Your task to perform on an android device: Show me popular videos on Youtube Image 0: 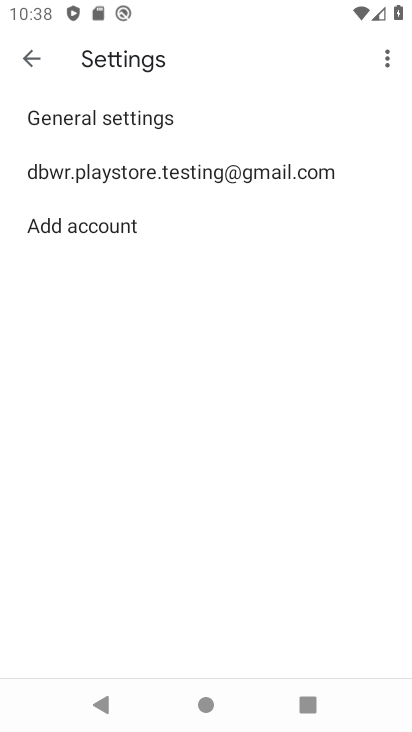
Step 0: press home button
Your task to perform on an android device: Show me popular videos on Youtube Image 1: 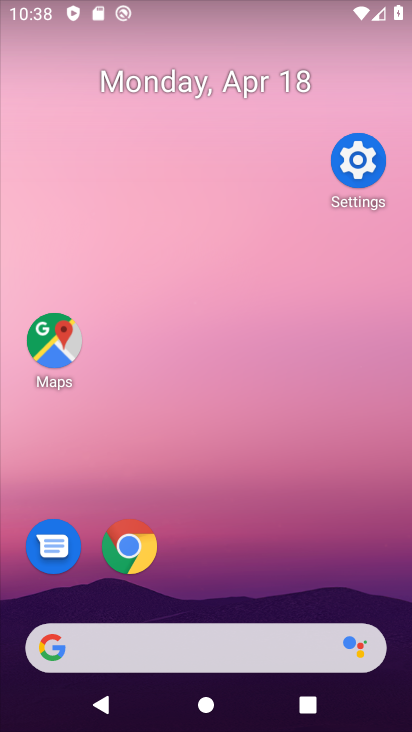
Step 1: drag from (270, 512) to (249, 340)
Your task to perform on an android device: Show me popular videos on Youtube Image 2: 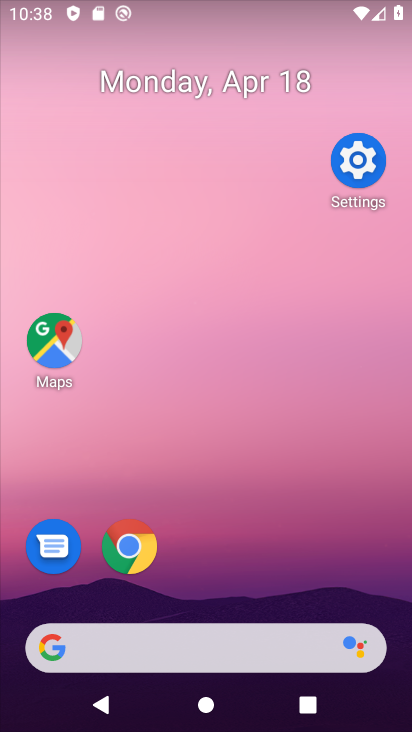
Step 2: drag from (214, 562) to (129, 285)
Your task to perform on an android device: Show me popular videos on Youtube Image 3: 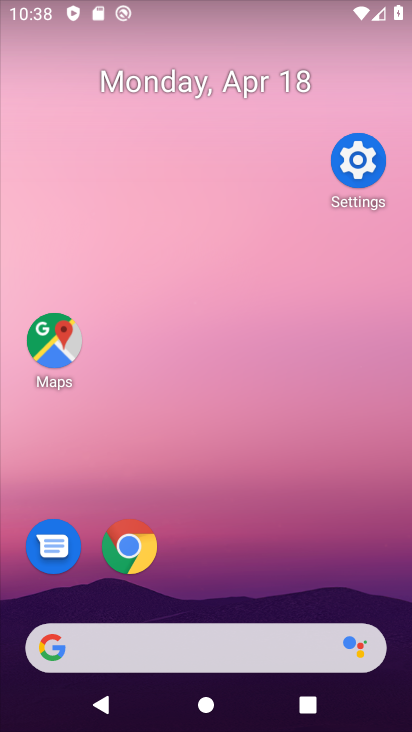
Step 3: drag from (180, 328) to (152, 209)
Your task to perform on an android device: Show me popular videos on Youtube Image 4: 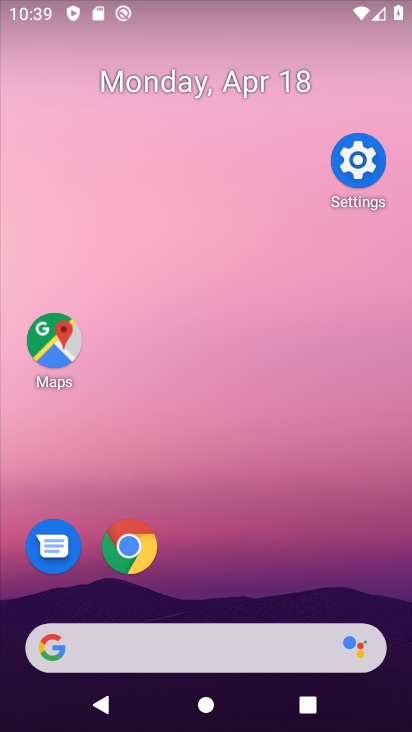
Step 4: drag from (215, 452) to (148, 205)
Your task to perform on an android device: Show me popular videos on Youtube Image 5: 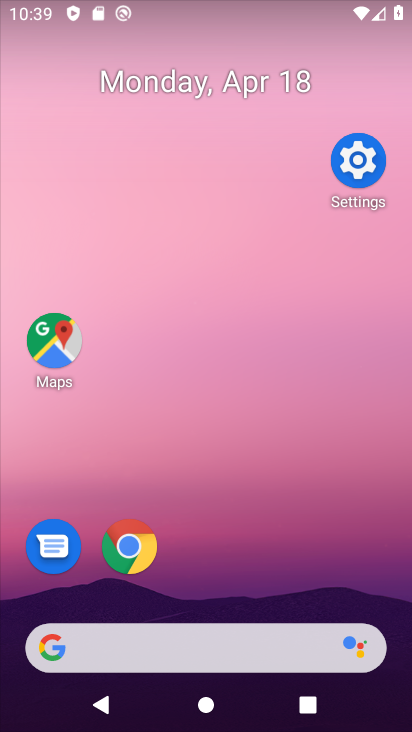
Step 5: drag from (211, 462) to (179, 247)
Your task to perform on an android device: Show me popular videos on Youtube Image 6: 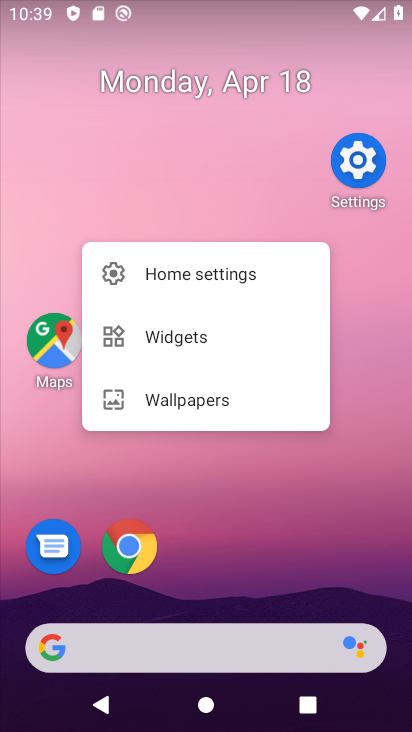
Step 6: drag from (277, 596) to (195, 111)
Your task to perform on an android device: Show me popular videos on Youtube Image 7: 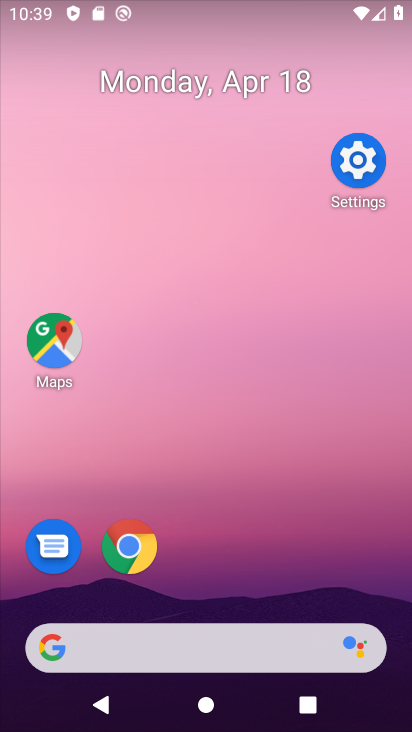
Step 7: click (198, 159)
Your task to perform on an android device: Show me popular videos on Youtube Image 8: 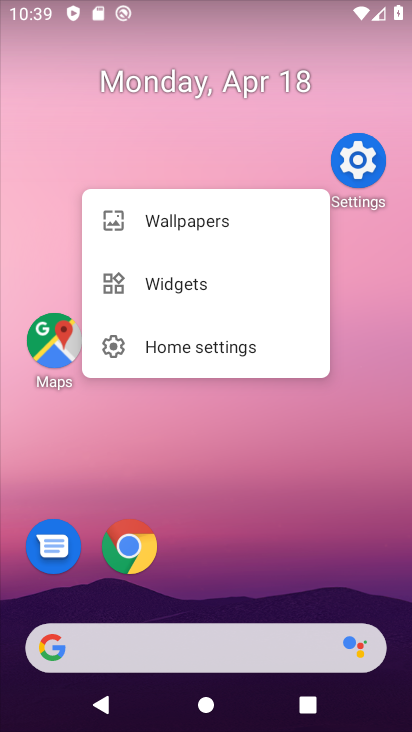
Step 8: drag from (302, 501) to (228, 163)
Your task to perform on an android device: Show me popular videos on Youtube Image 9: 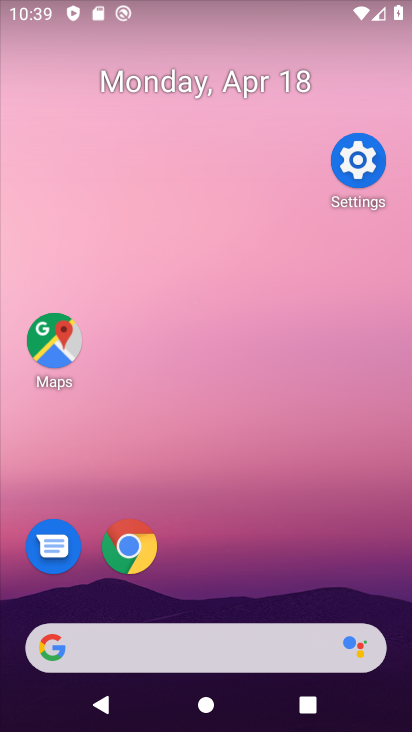
Step 9: click (228, 163)
Your task to perform on an android device: Show me popular videos on Youtube Image 10: 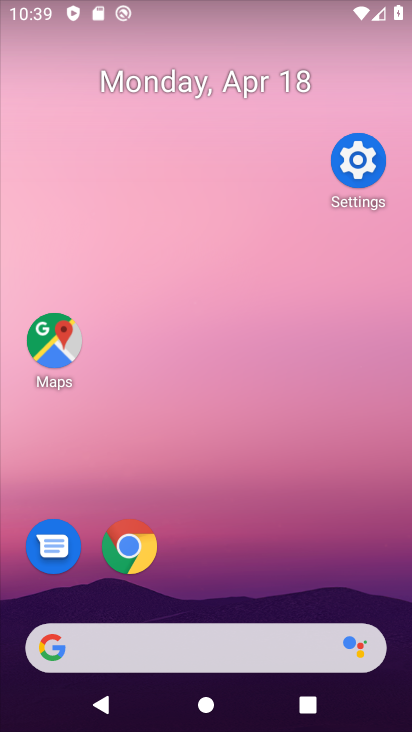
Step 10: drag from (191, 158) to (133, 171)
Your task to perform on an android device: Show me popular videos on Youtube Image 11: 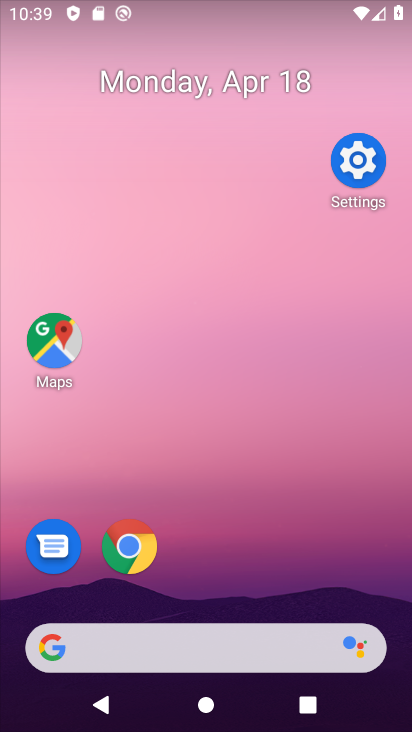
Step 11: drag from (283, 452) to (207, 186)
Your task to perform on an android device: Show me popular videos on Youtube Image 12: 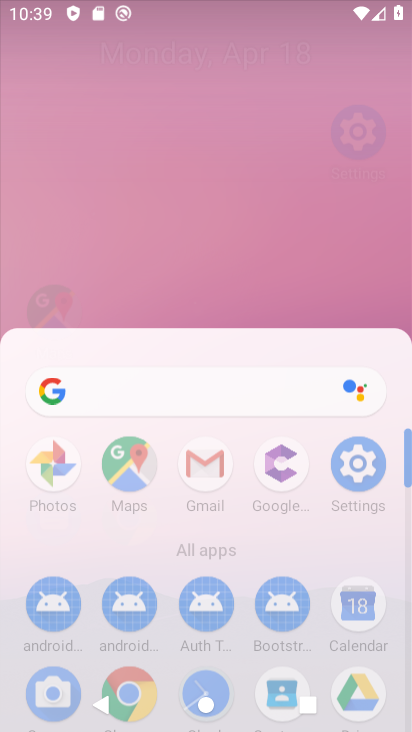
Step 12: drag from (212, 398) to (145, 113)
Your task to perform on an android device: Show me popular videos on Youtube Image 13: 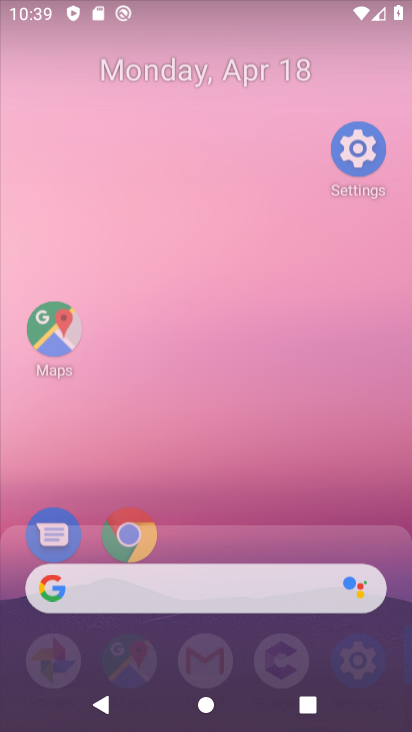
Step 13: drag from (259, 455) to (174, 106)
Your task to perform on an android device: Show me popular videos on Youtube Image 14: 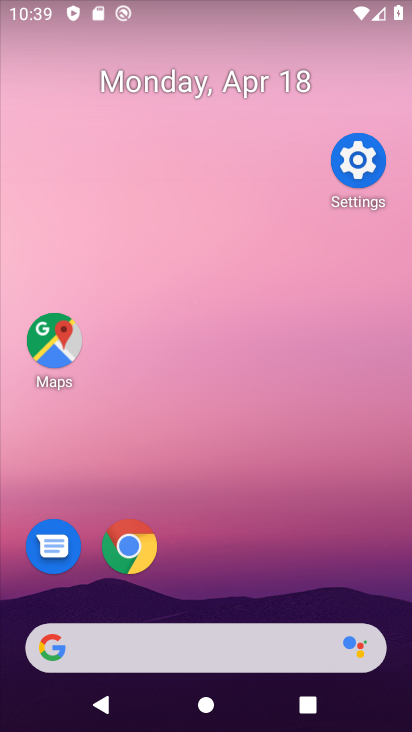
Step 14: drag from (316, 464) to (150, 132)
Your task to perform on an android device: Show me popular videos on Youtube Image 15: 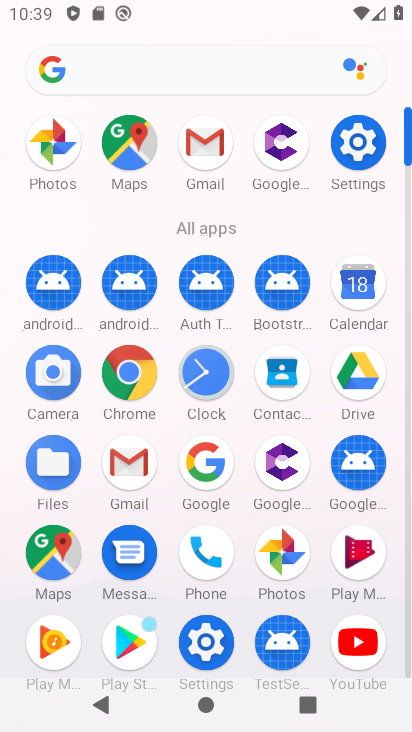
Step 15: click (368, 641)
Your task to perform on an android device: Show me popular videos on Youtube Image 16: 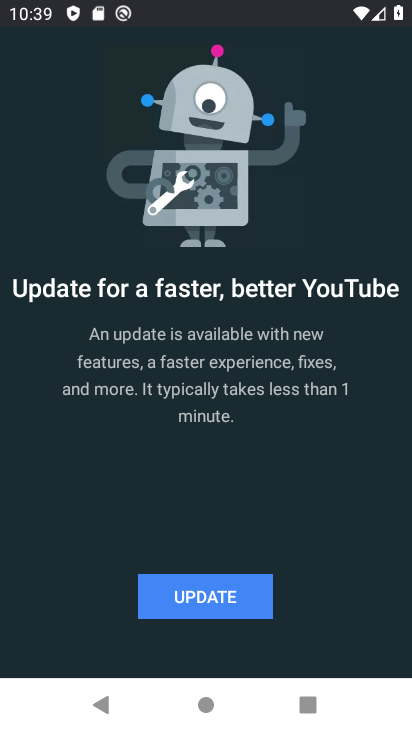
Step 16: click (222, 592)
Your task to perform on an android device: Show me popular videos on Youtube Image 17: 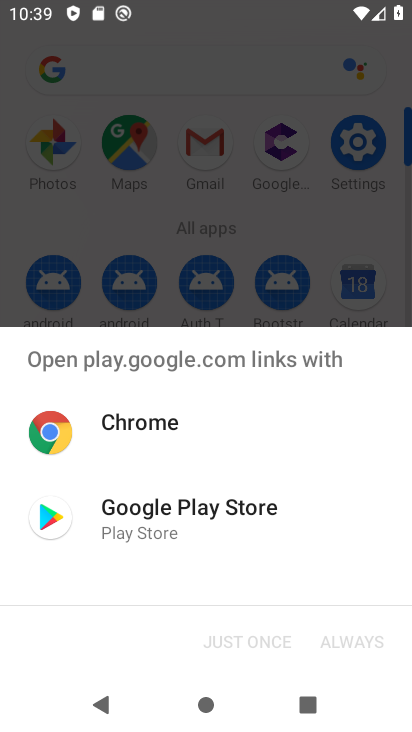
Step 17: click (137, 511)
Your task to perform on an android device: Show me popular videos on Youtube Image 18: 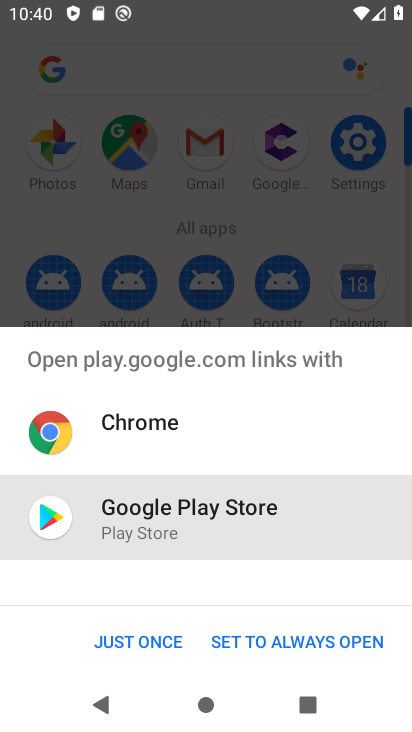
Step 18: click (131, 498)
Your task to perform on an android device: Show me popular videos on Youtube Image 19: 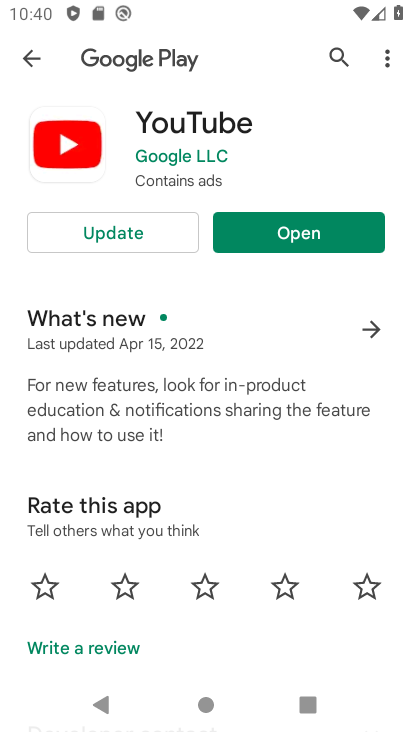
Step 19: click (271, 239)
Your task to perform on an android device: Show me popular videos on Youtube Image 20: 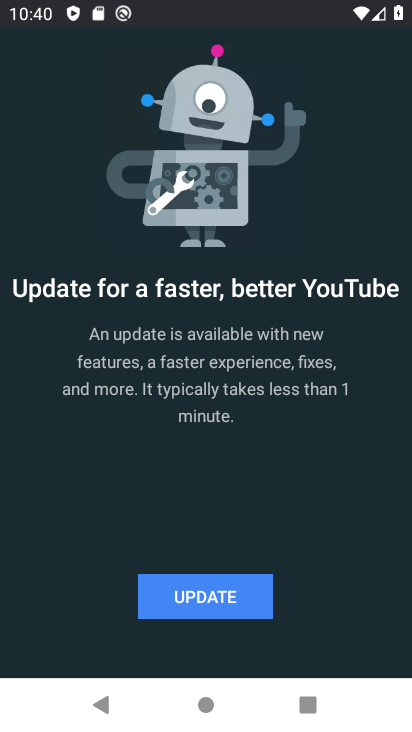
Step 20: click (227, 594)
Your task to perform on an android device: Show me popular videos on Youtube Image 21: 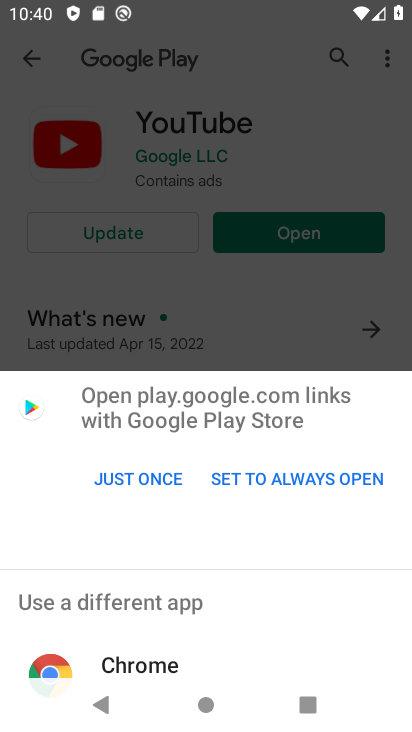
Step 21: click (145, 233)
Your task to perform on an android device: Show me popular videos on Youtube Image 22: 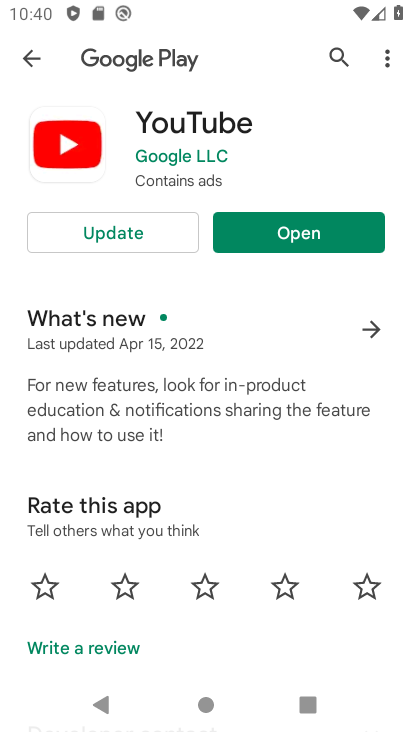
Step 22: click (119, 230)
Your task to perform on an android device: Show me popular videos on Youtube Image 23: 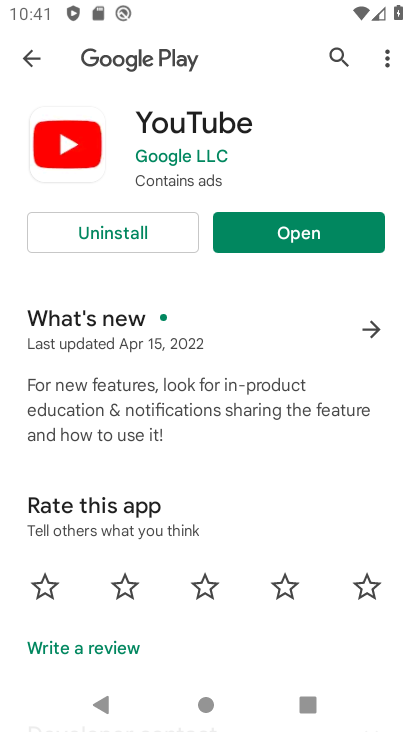
Step 23: click (306, 229)
Your task to perform on an android device: Show me popular videos on Youtube Image 24: 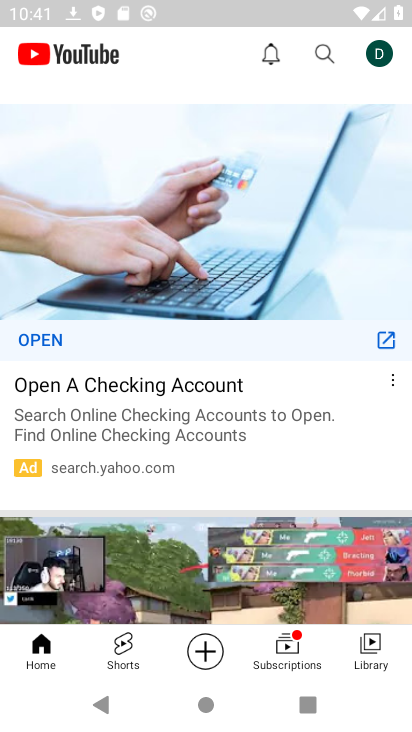
Step 24: drag from (288, 579) to (255, 237)
Your task to perform on an android device: Show me popular videos on Youtube Image 25: 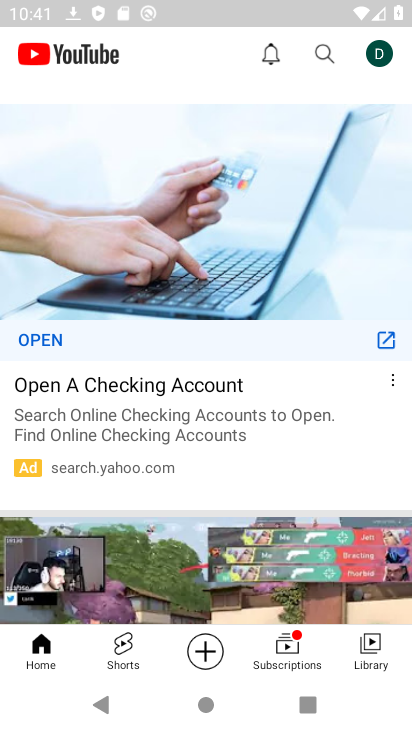
Step 25: drag from (288, 486) to (258, 224)
Your task to perform on an android device: Show me popular videos on Youtube Image 26: 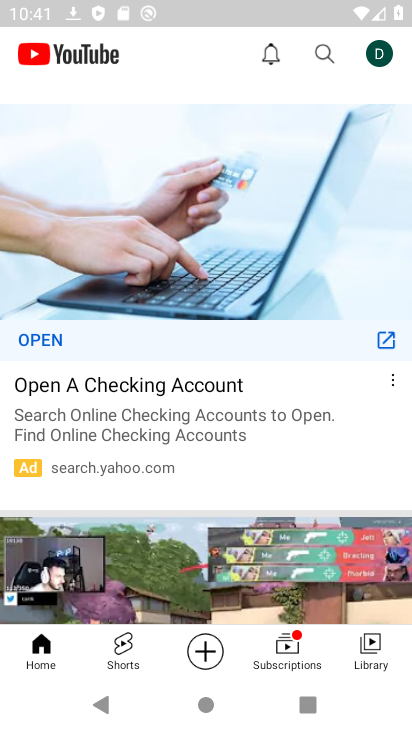
Step 26: drag from (296, 346) to (296, 210)
Your task to perform on an android device: Show me popular videos on Youtube Image 27: 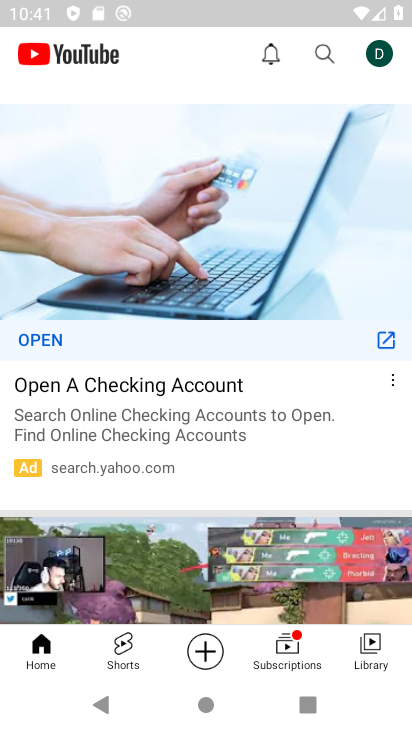
Step 27: drag from (207, 467) to (184, 307)
Your task to perform on an android device: Show me popular videos on Youtube Image 28: 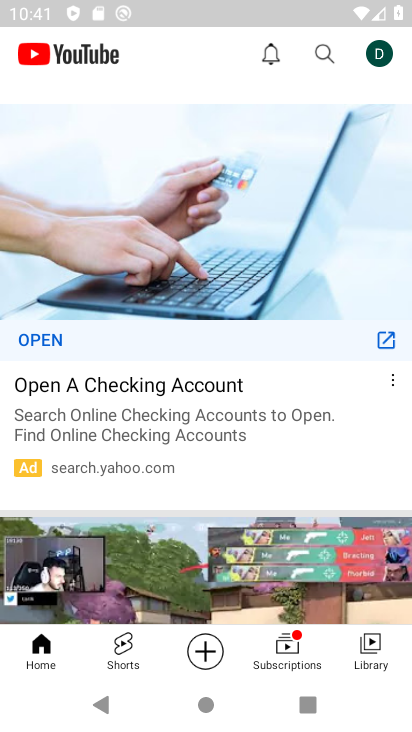
Step 28: drag from (263, 505) to (243, 255)
Your task to perform on an android device: Show me popular videos on Youtube Image 29: 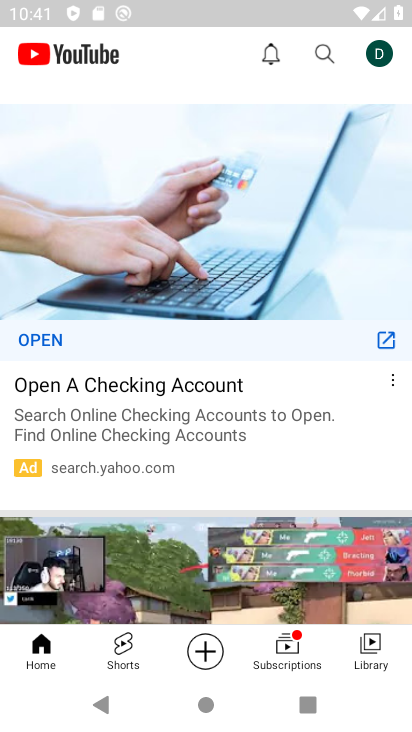
Step 29: drag from (282, 295) to (282, 255)
Your task to perform on an android device: Show me popular videos on Youtube Image 30: 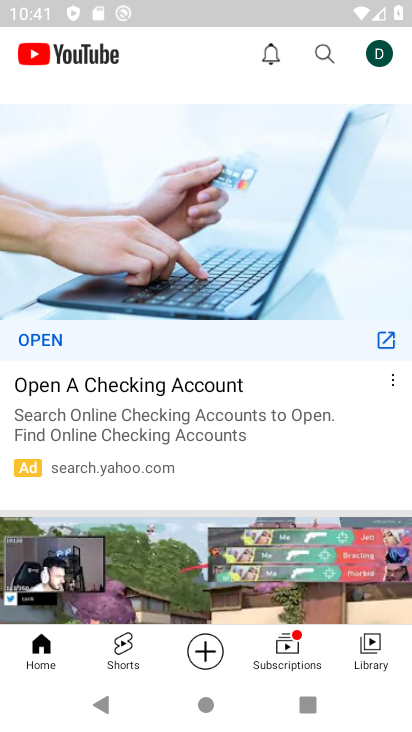
Step 30: drag from (221, 497) to (181, 215)
Your task to perform on an android device: Show me popular videos on Youtube Image 31: 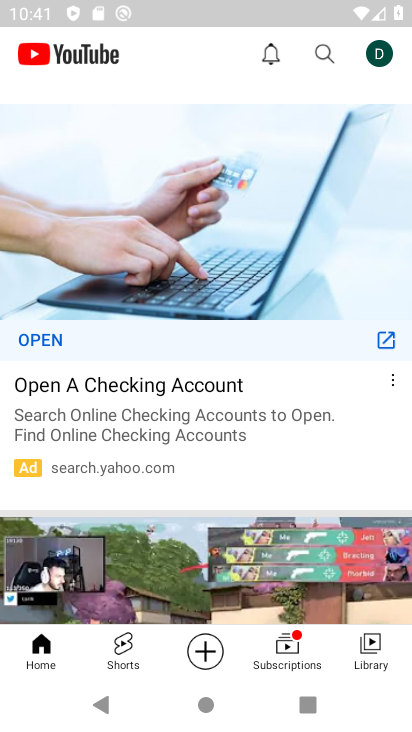
Step 31: drag from (209, 530) to (198, 207)
Your task to perform on an android device: Show me popular videos on Youtube Image 32: 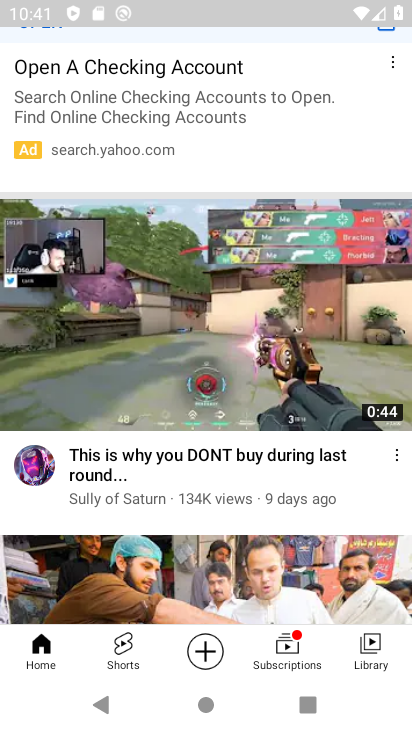
Step 32: drag from (220, 282) to (179, 170)
Your task to perform on an android device: Show me popular videos on Youtube Image 33: 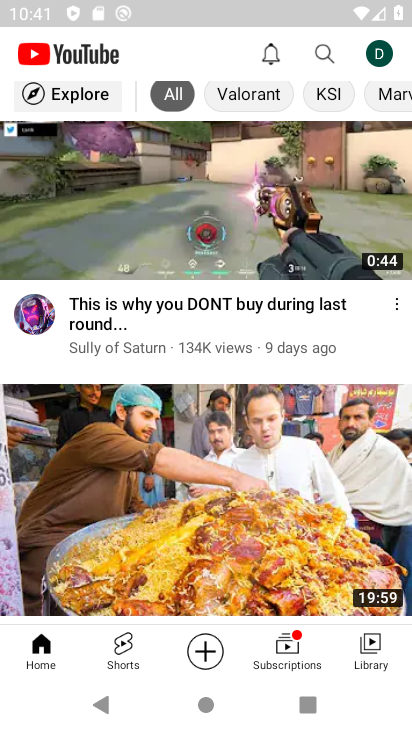
Step 33: drag from (195, 229) to (190, 142)
Your task to perform on an android device: Show me popular videos on Youtube Image 34: 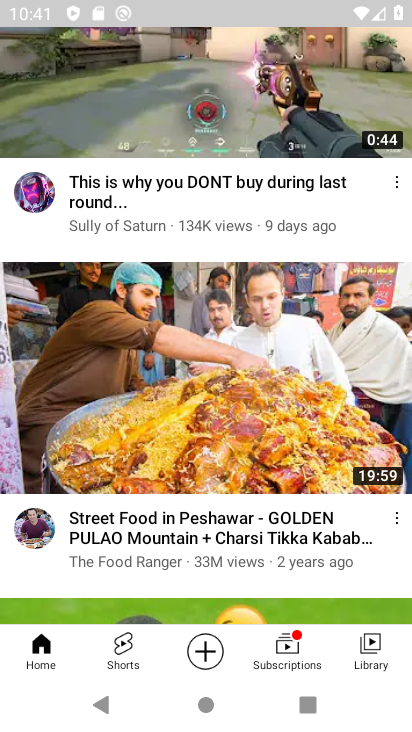
Step 34: drag from (170, 100) to (220, 159)
Your task to perform on an android device: Show me popular videos on Youtube Image 35: 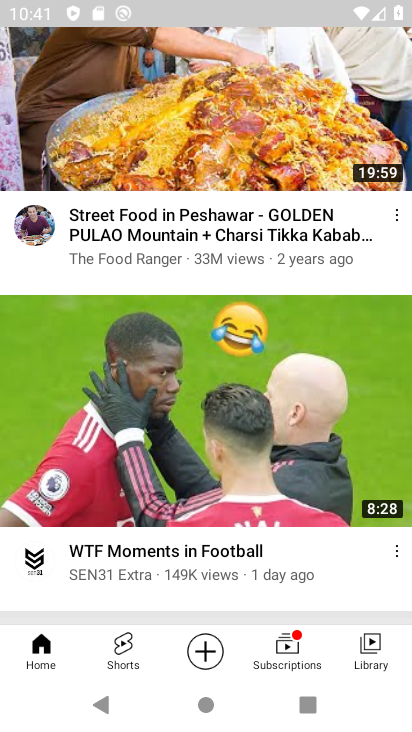
Step 35: click (171, 193)
Your task to perform on an android device: Show me popular videos on Youtube Image 36: 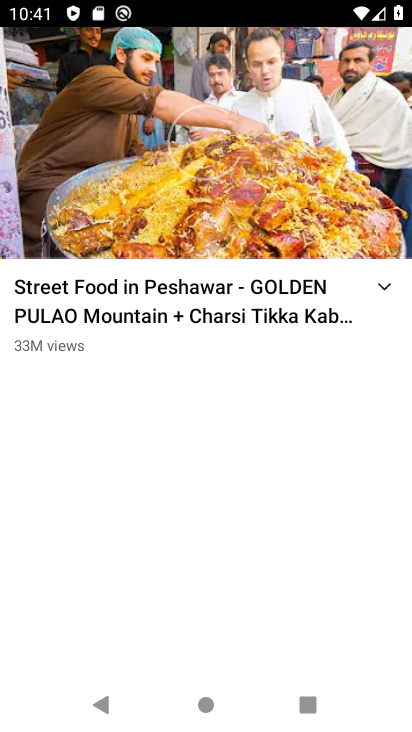
Step 36: click (88, 199)
Your task to perform on an android device: Show me popular videos on Youtube Image 37: 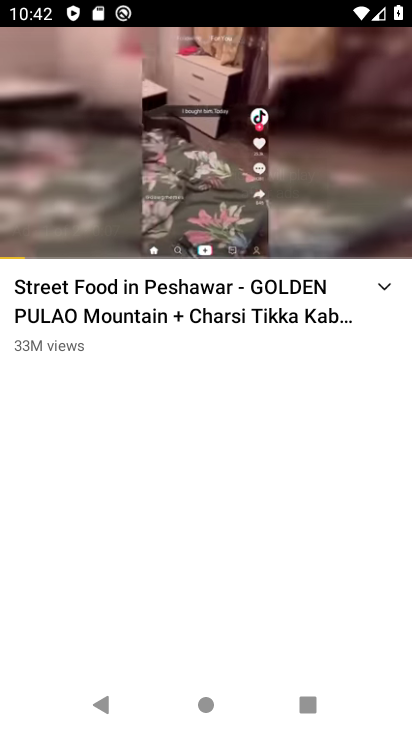
Step 37: click (298, 318)
Your task to perform on an android device: Show me popular videos on Youtube Image 38: 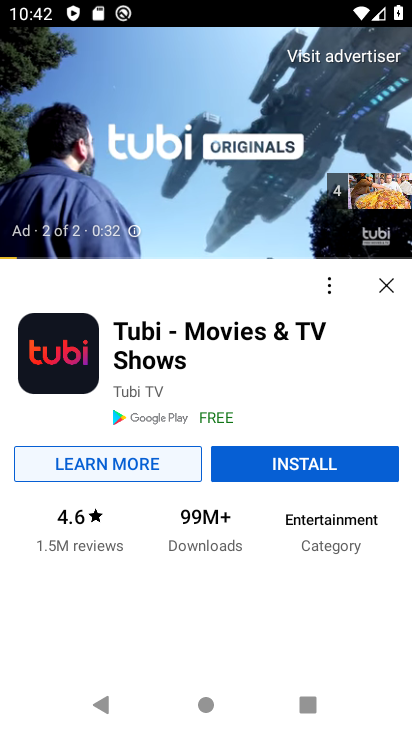
Step 38: task complete